Your task to perform on an android device: Open location settings Image 0: 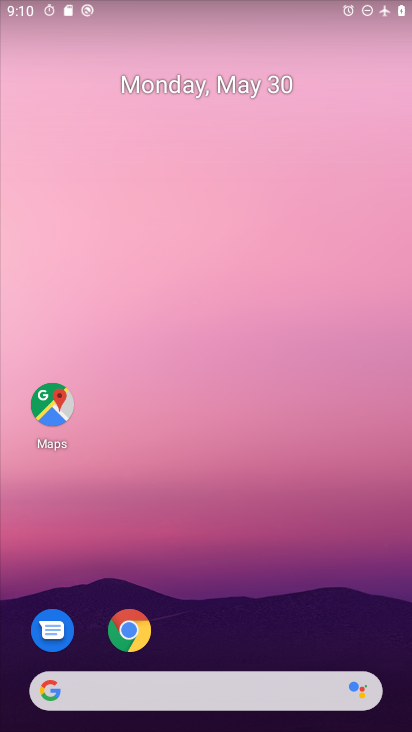
Step 0: drag from (360, 611) to (254, 70)
Your task to perform on an android device: Open location settings Image 1: 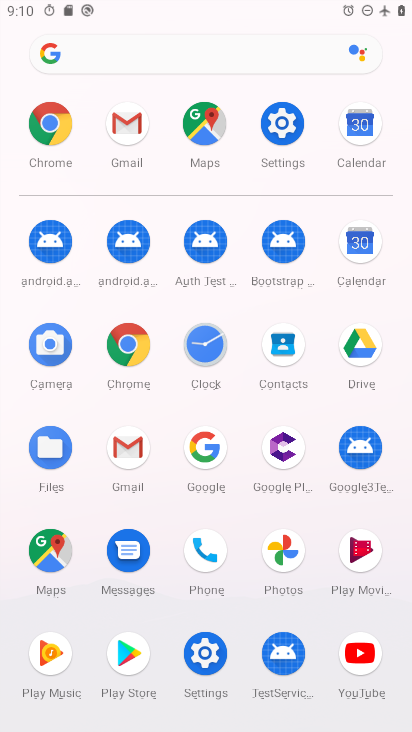
Step 1: click (204, 673)
Your task to perform on an android device: Open location settings Image 2: 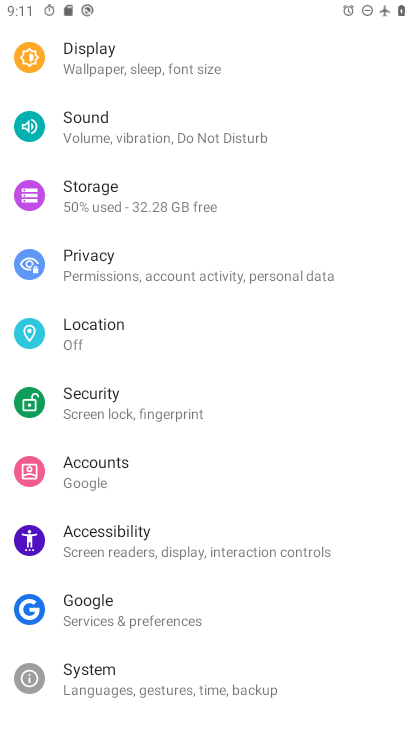
Step 2: click (119, 341)
Your task to perform on an android device: Open location settings Image 3: 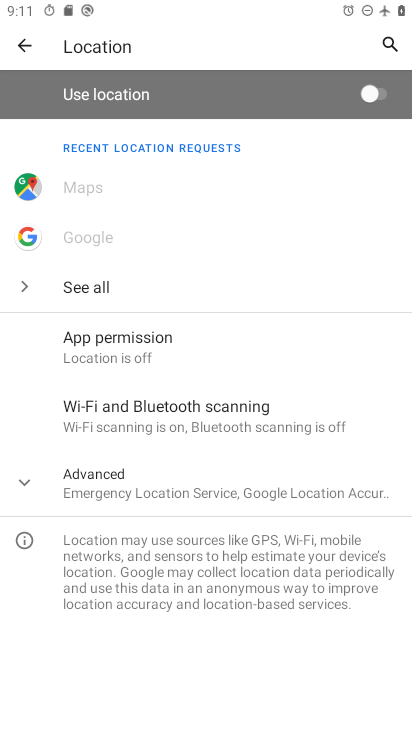
Step 3: task complete